Your task to perform on an android device: Go to display settings Image 0: 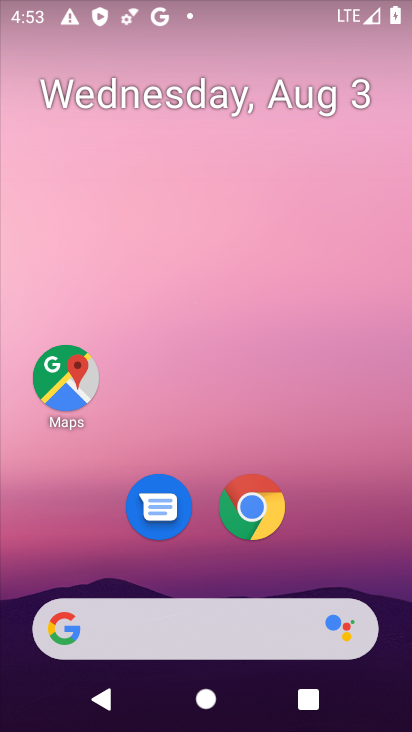
Step 0: drag from (338, 509) to (299, 13)
Your task to perform on an android device: Go to display settings Image 1: 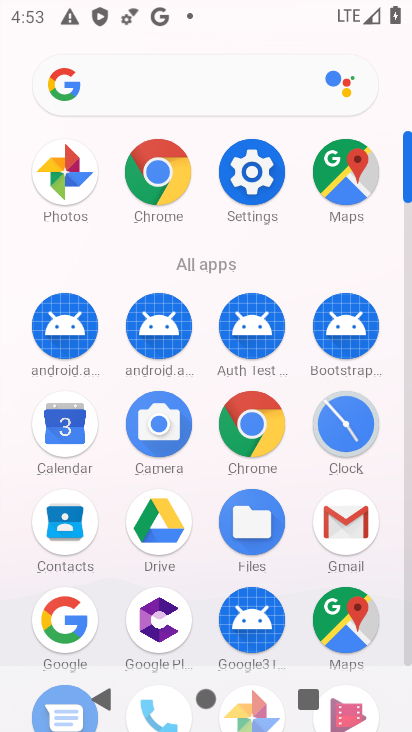
Step 1: drag from (285, 564) to (287, 173)
Your task to perform on an android device: Go to display settings Image 2: 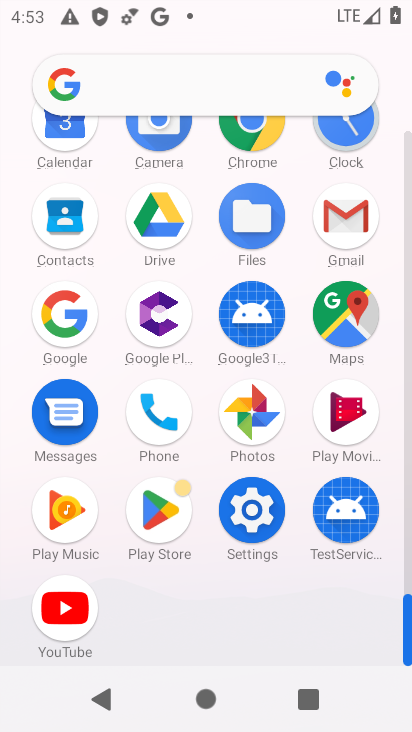
Step 2: click (242, 507)
Your task to perform on an android device: Go to display settings Image 3: 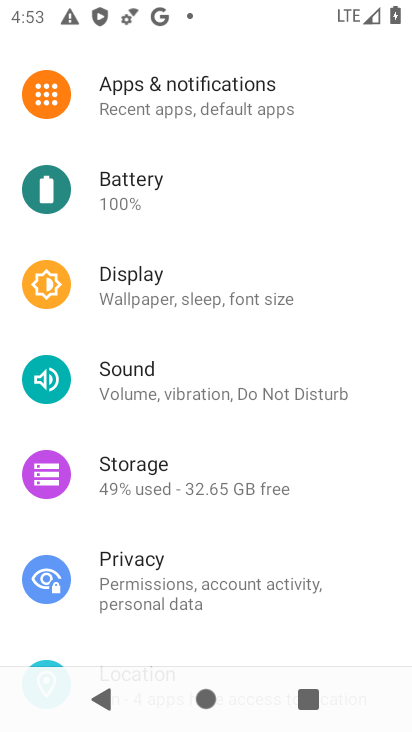
Step 3: drag from (290, 172) to (225, 600)
Your task to perform on an android device: Go to display settings Image 4: 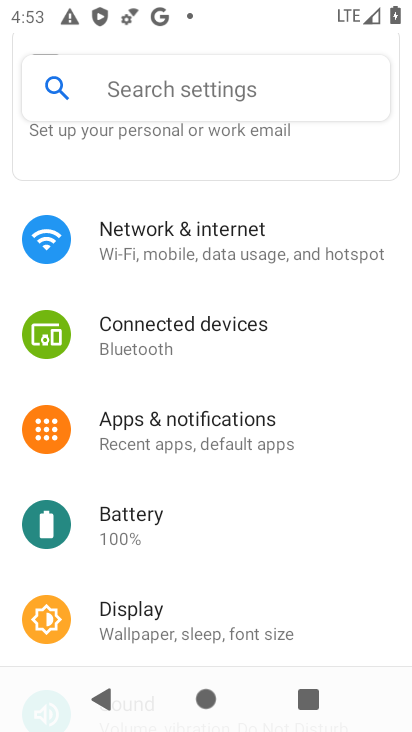
Step 4: drag from (210, 536) to (285, 236)
Your task to perform on an android device: Go to display settings Image 5: 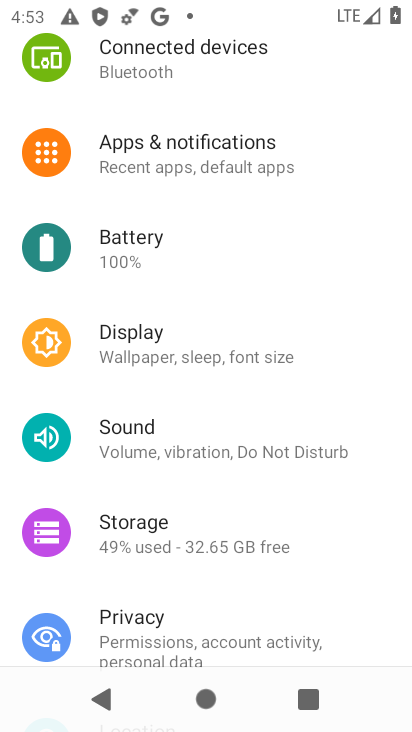
Step 5: click (130, 361)
Your task to perform on an android device: Go to display settings Image 6: 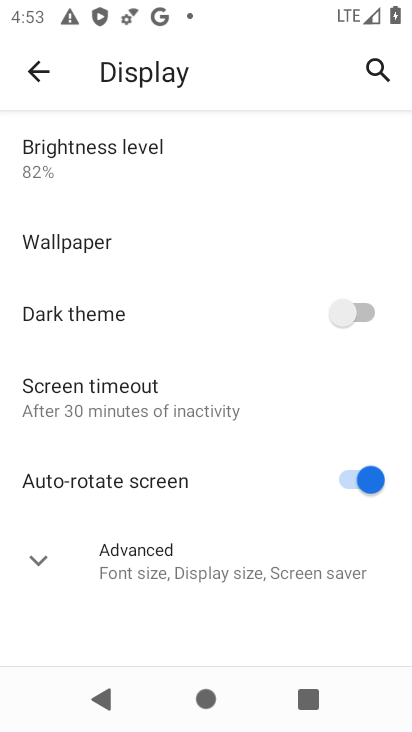
Step 6: task complete